Your task to perform on an android device: check android version Image 0: 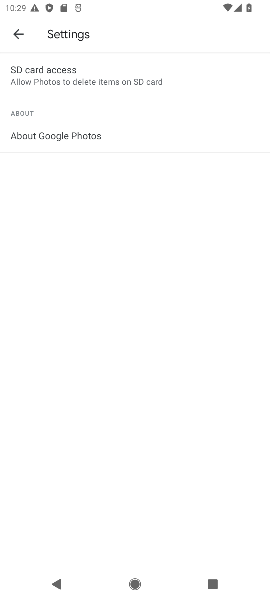
Step 0: press home button
Your task to perform on an android device: check android version Image 1: 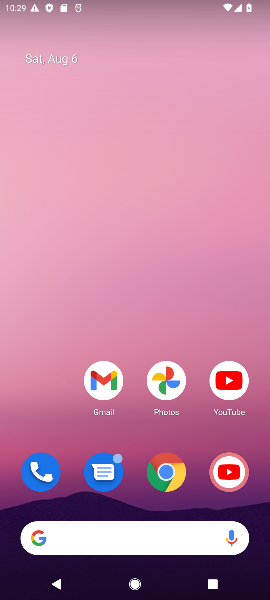
Step 1: drag from (200, 502) to (90, 27)
Your task to perform on an android device: check android version Image 2: 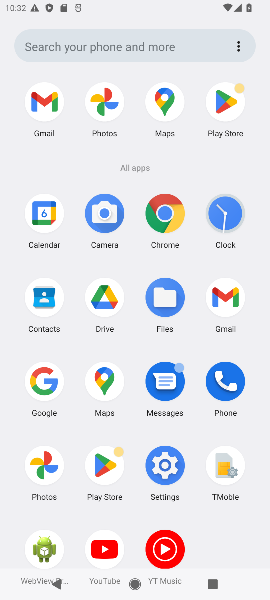
Step 2: click (170, 476)
Your task to perform on an android device: check android version Image 3: 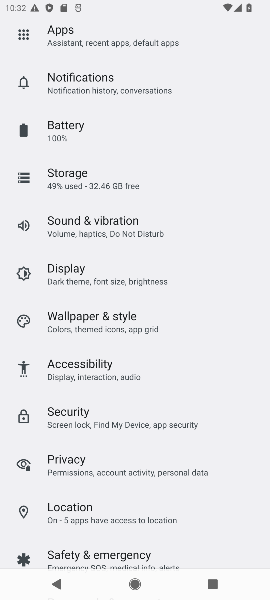
Step 3: drag from (138, 546) to (237, 37)
Your task to perform on an android device: check android version Image 4: 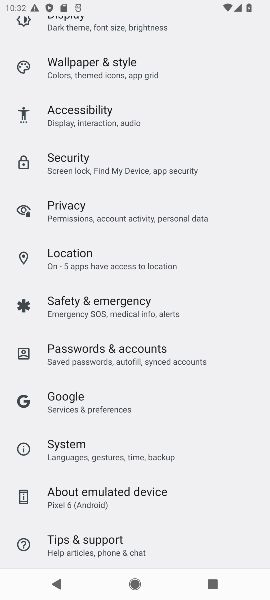
Step 4: drag from (98, 516) to (119, 217)
Your task to perform on an android device: check android version Image 5: 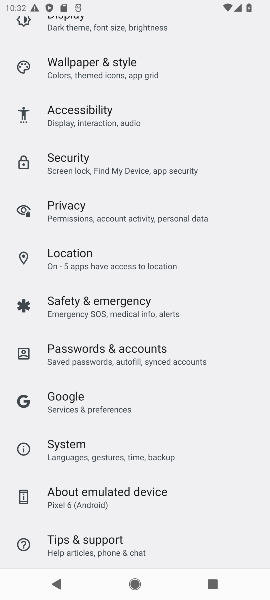
Step 5: click (97, 502)
Your task to perform on an android device: check android version Image 6: 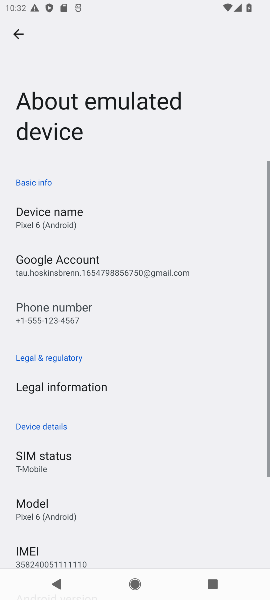
Step 6: drag from (56, 535) to (76, 197)
Your task to perform on an android device: check android version Image 7: 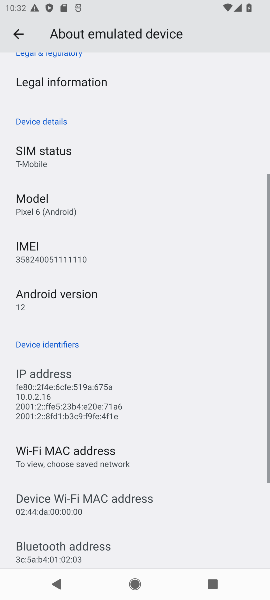
Step 7: click (83, 303)
Your task to perform on an android device: check android version Image 8: 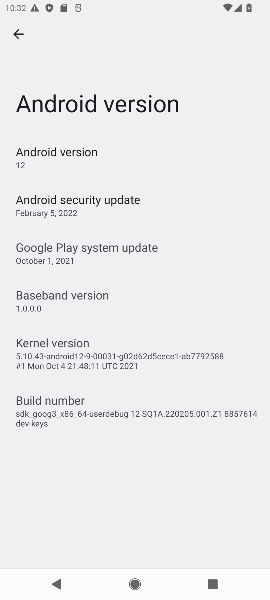
Step 8: task complete